Your task to perform on an android device: open app "Google Play services" Image 0: 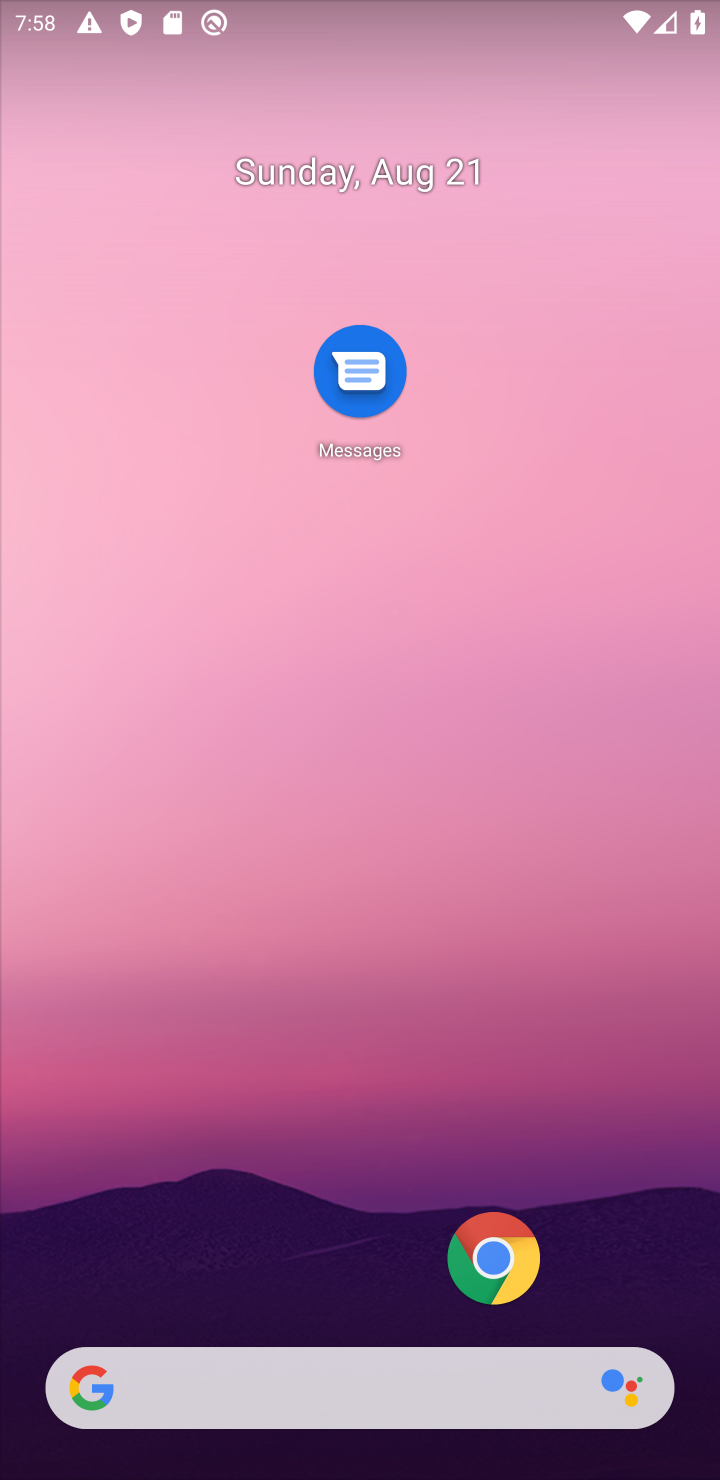
Step 0: drag from (451, 1423) to (337, 160)
Your task to perform on an android device: open app "Google Play services" Image 1: 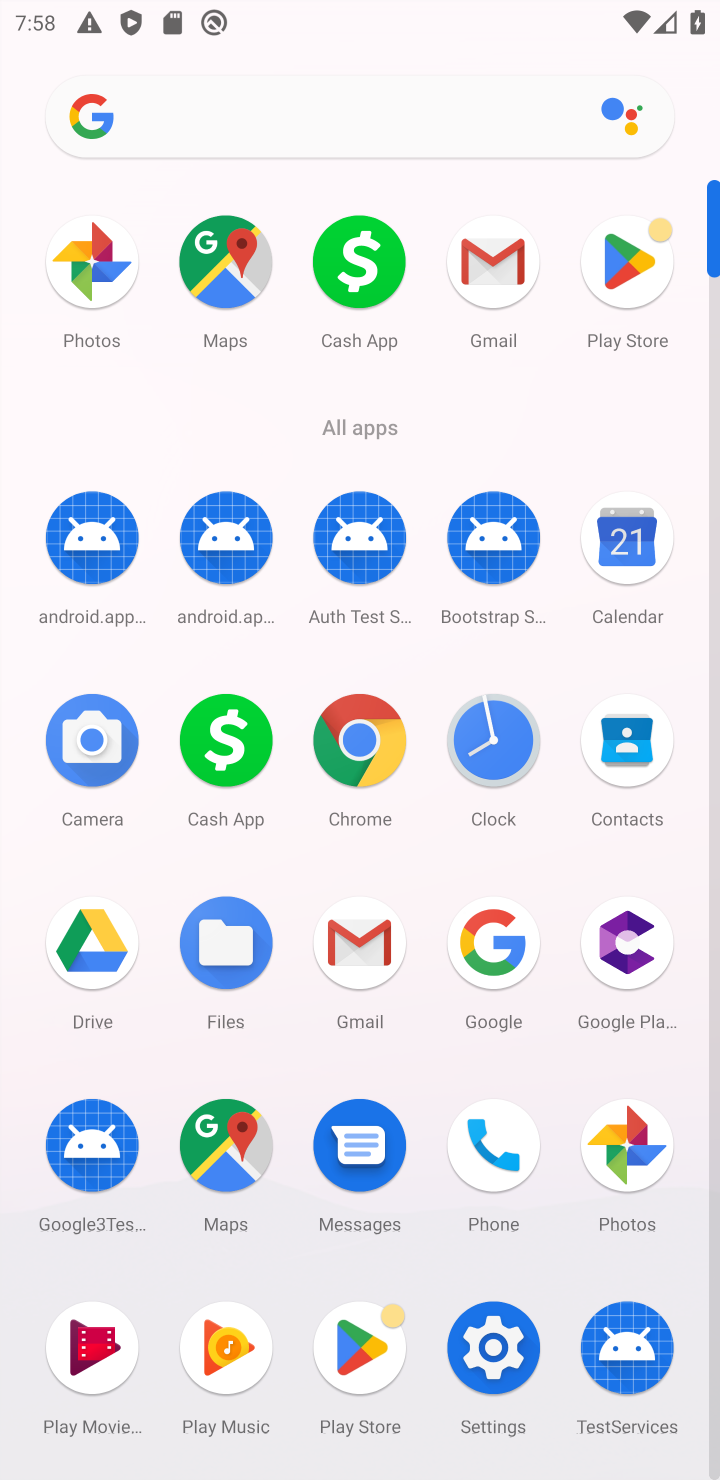
Step 1: click (610, 253)
Your task to perform on an android device: open app "Google Play services" Image 2: 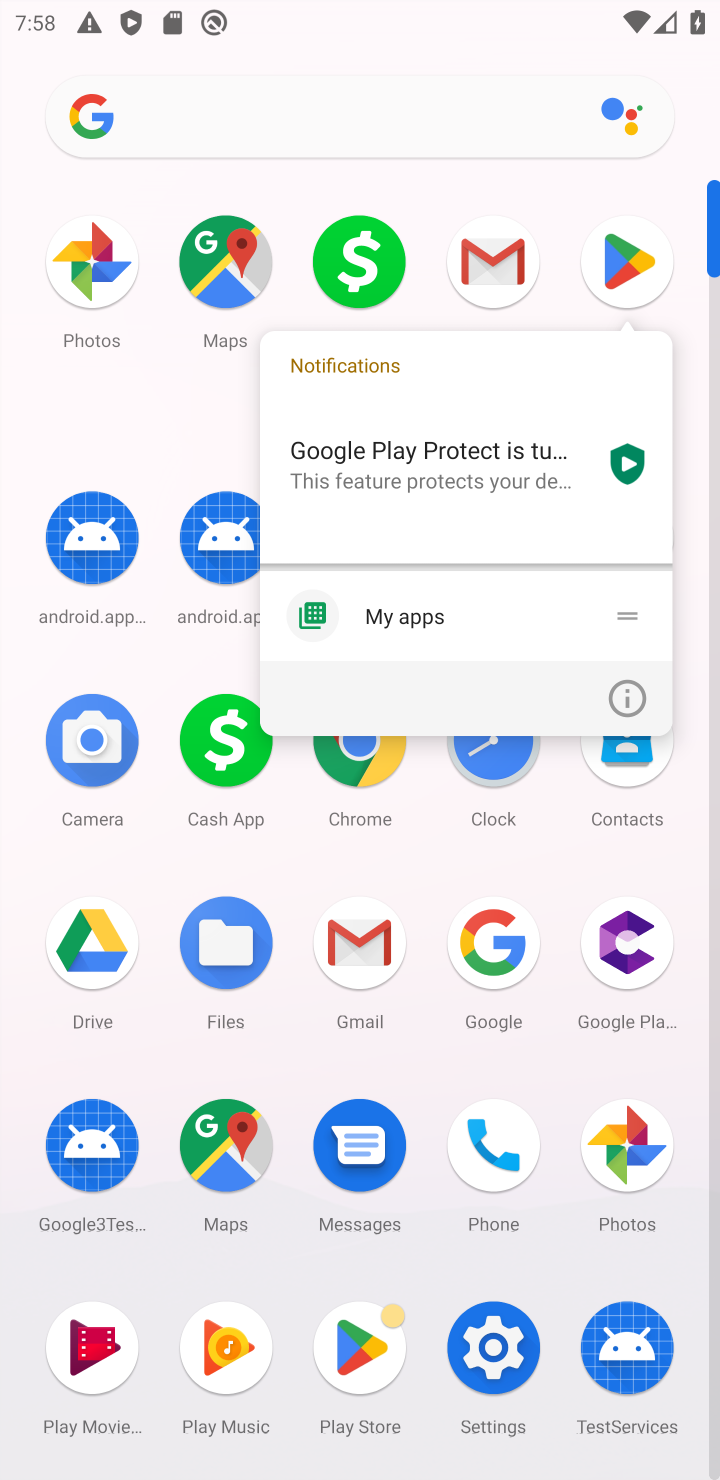
Step 2: click (610, 250)
Your task to perform on an android device: open app "Google Play services" Image 3: 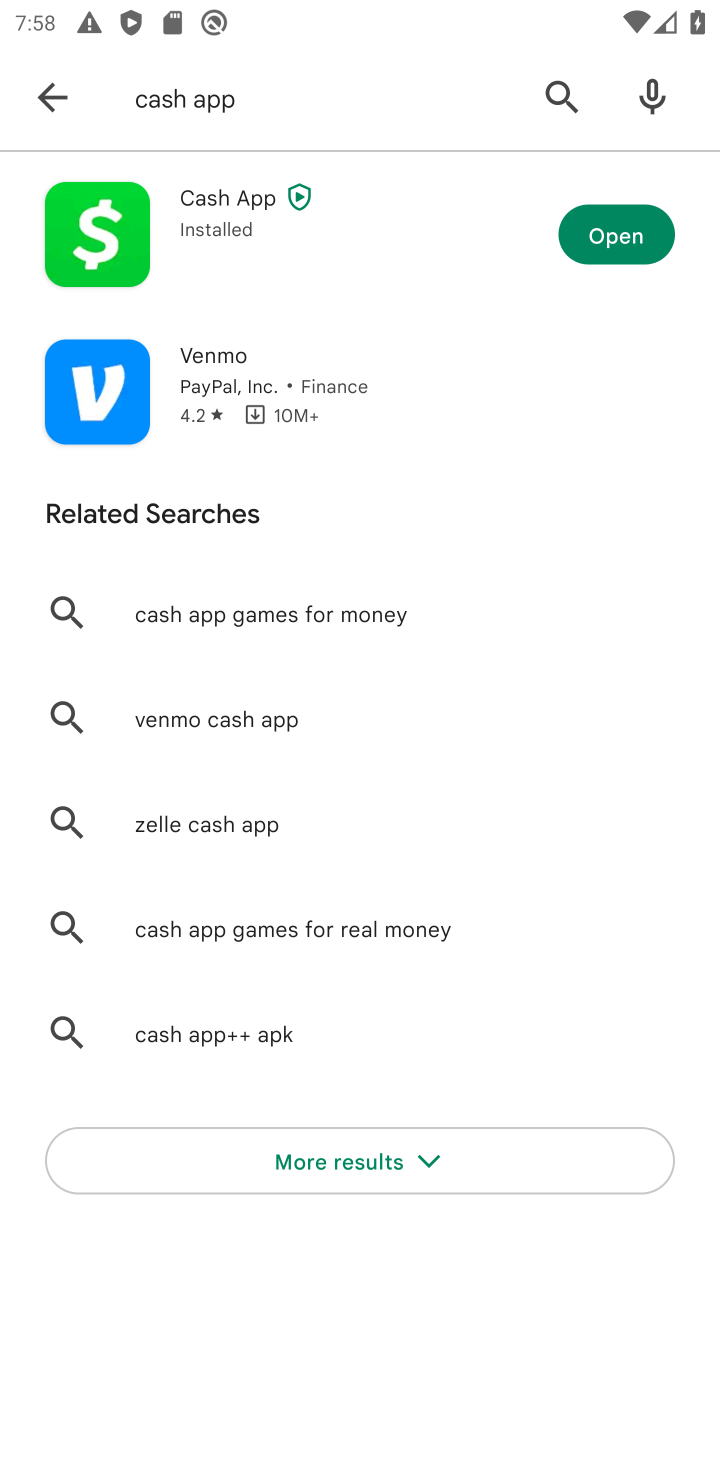
Step 3: press back button
Your task to perform on an android device: open app "Google Play services" Image 4: 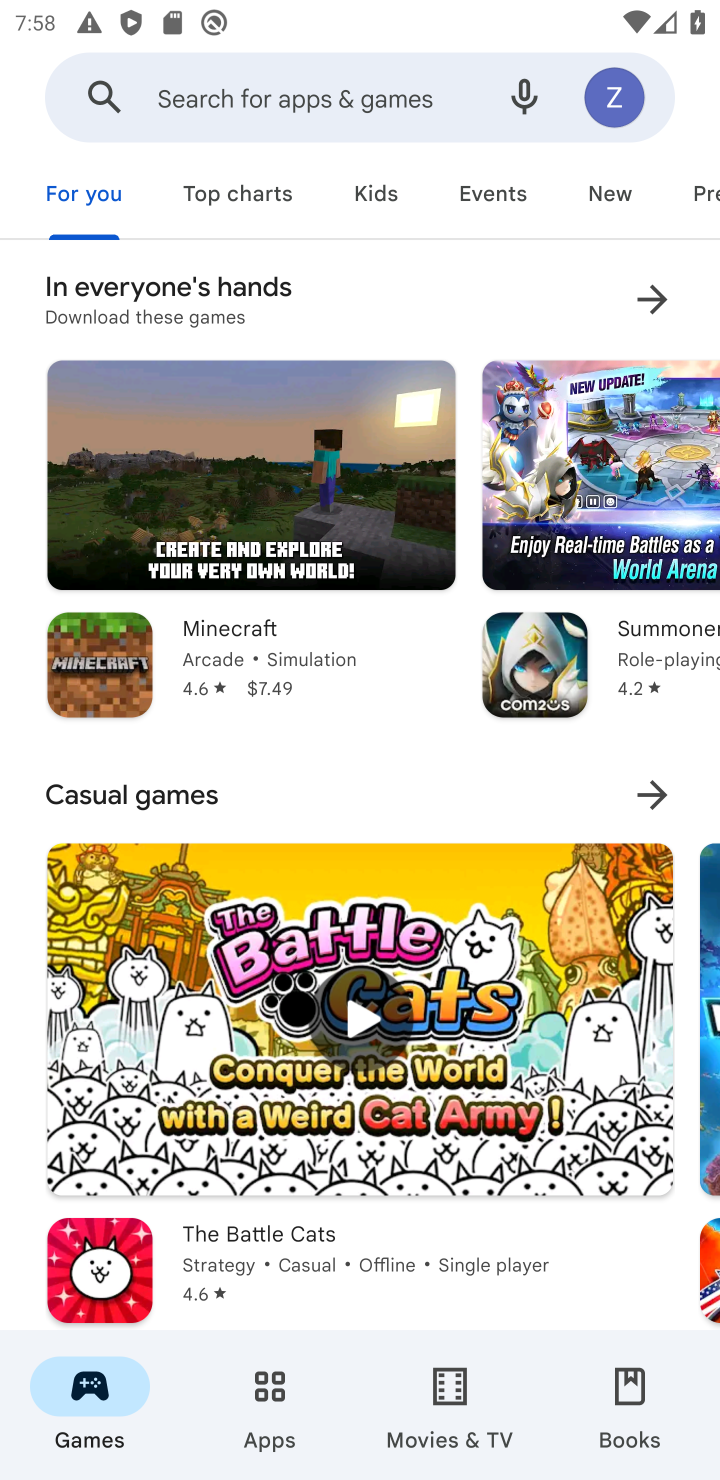
Step 4: click (223, 95)
Your task to perform on an android device: open app "Google Play services" Image 5: 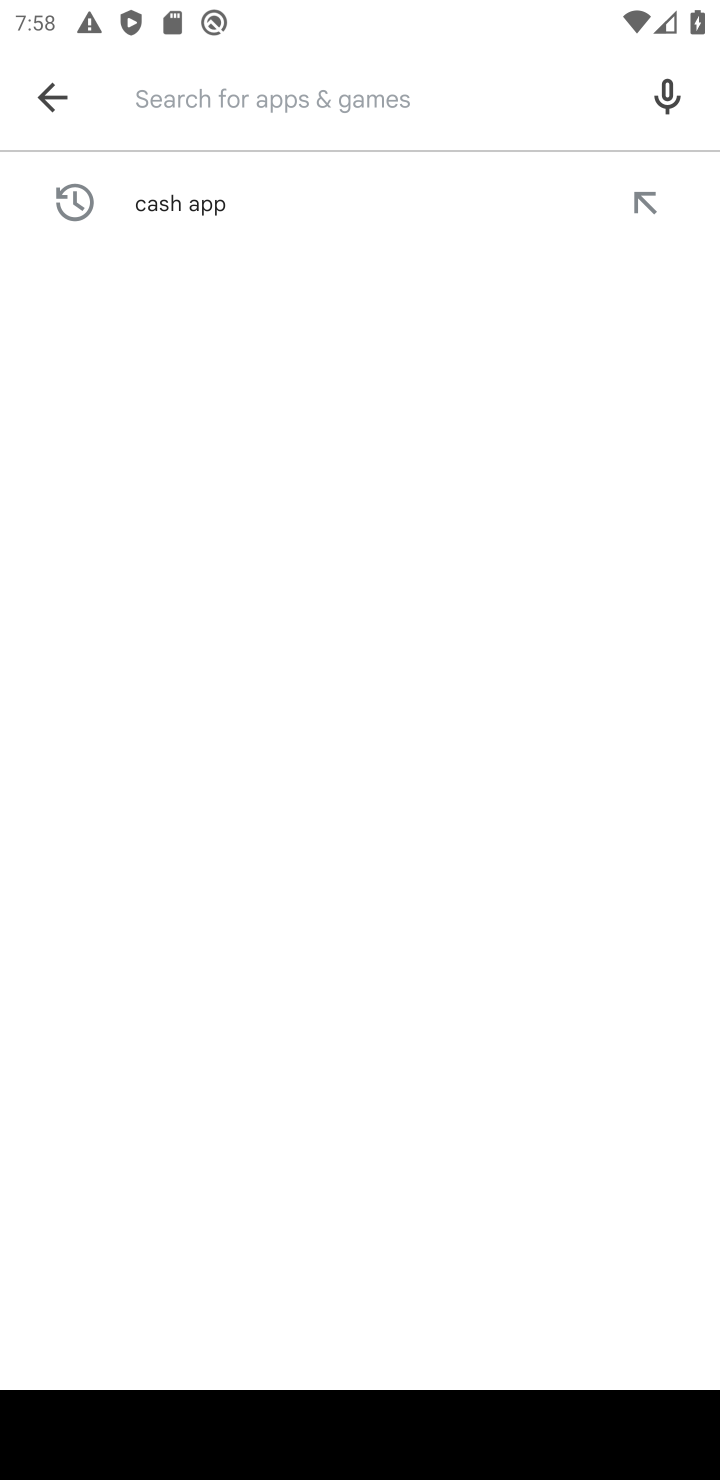
Step 5: type ""Google Play services"
Your task to perform on an android device: open app "Google Play services" Image 6: 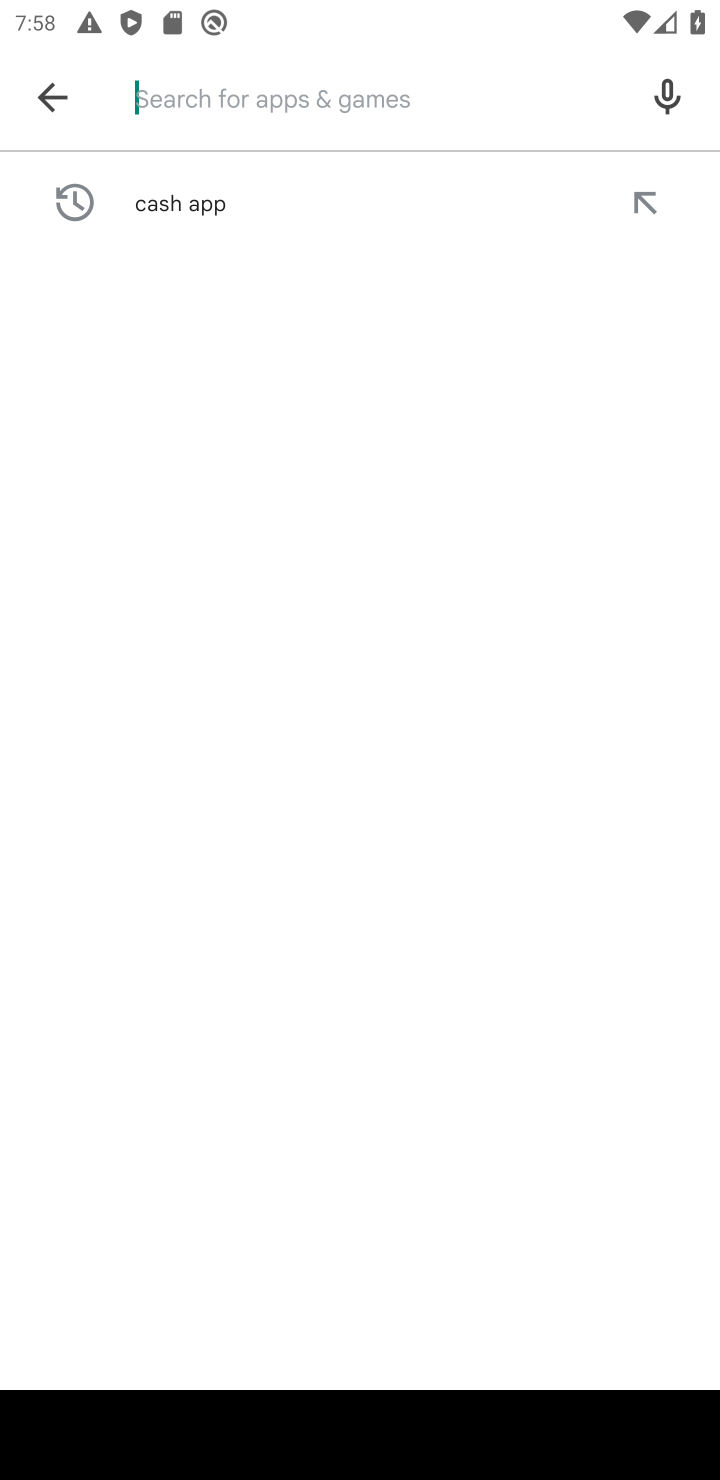
Step 6: press enter
Your task to perform on an android device: open app "Google Play services" Image 7: 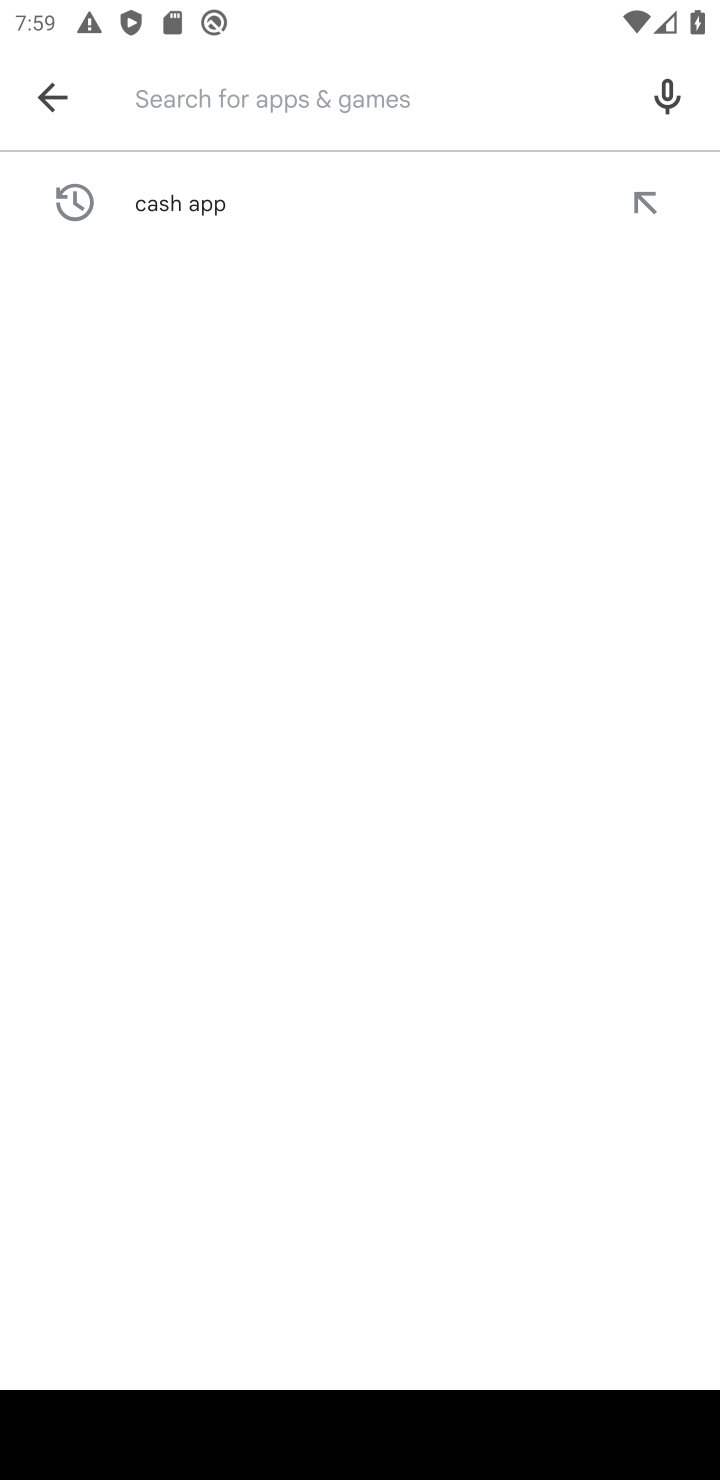
Step 7: type "Google Play services"
Your task to perform on an android device: open app "Google Play services" Image 8: 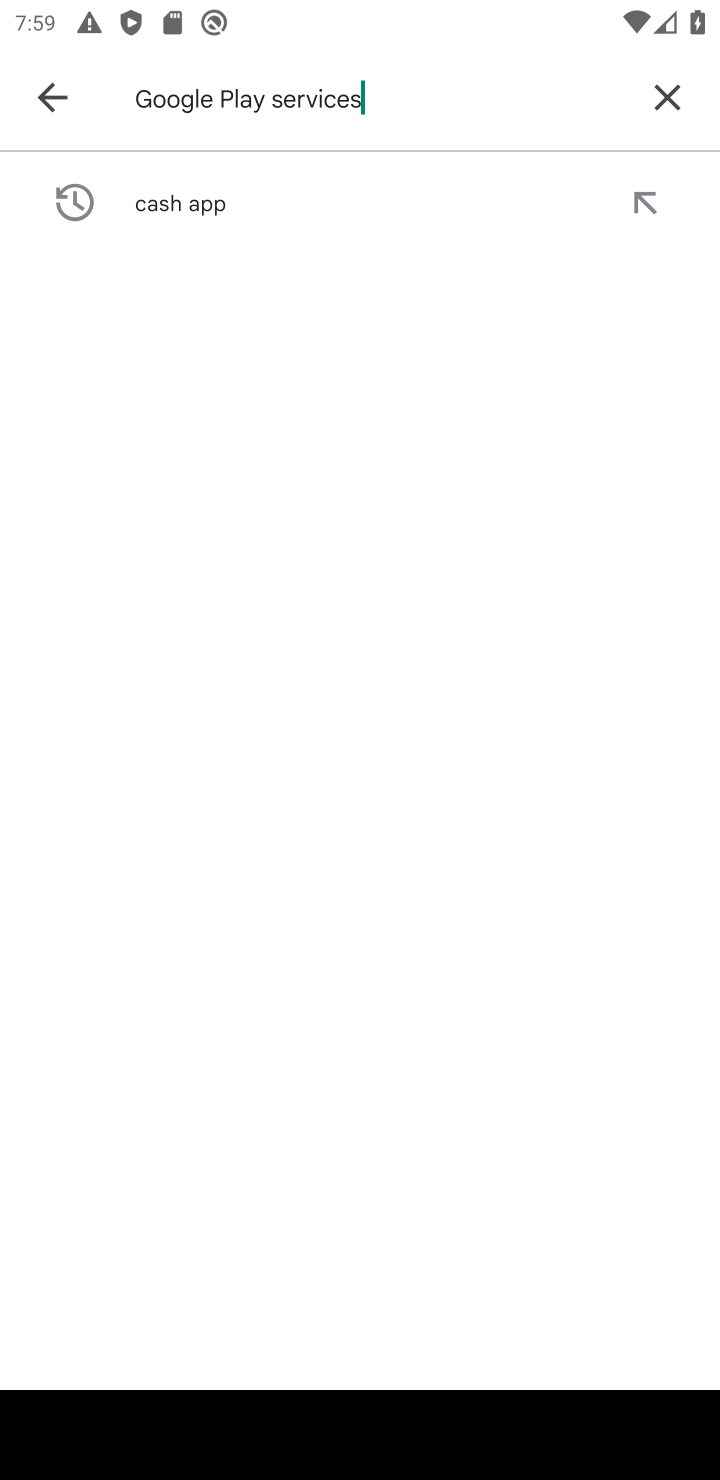
Step 8: press enter
Your task to perform on an android device: open app "Google Play services" Image 9: 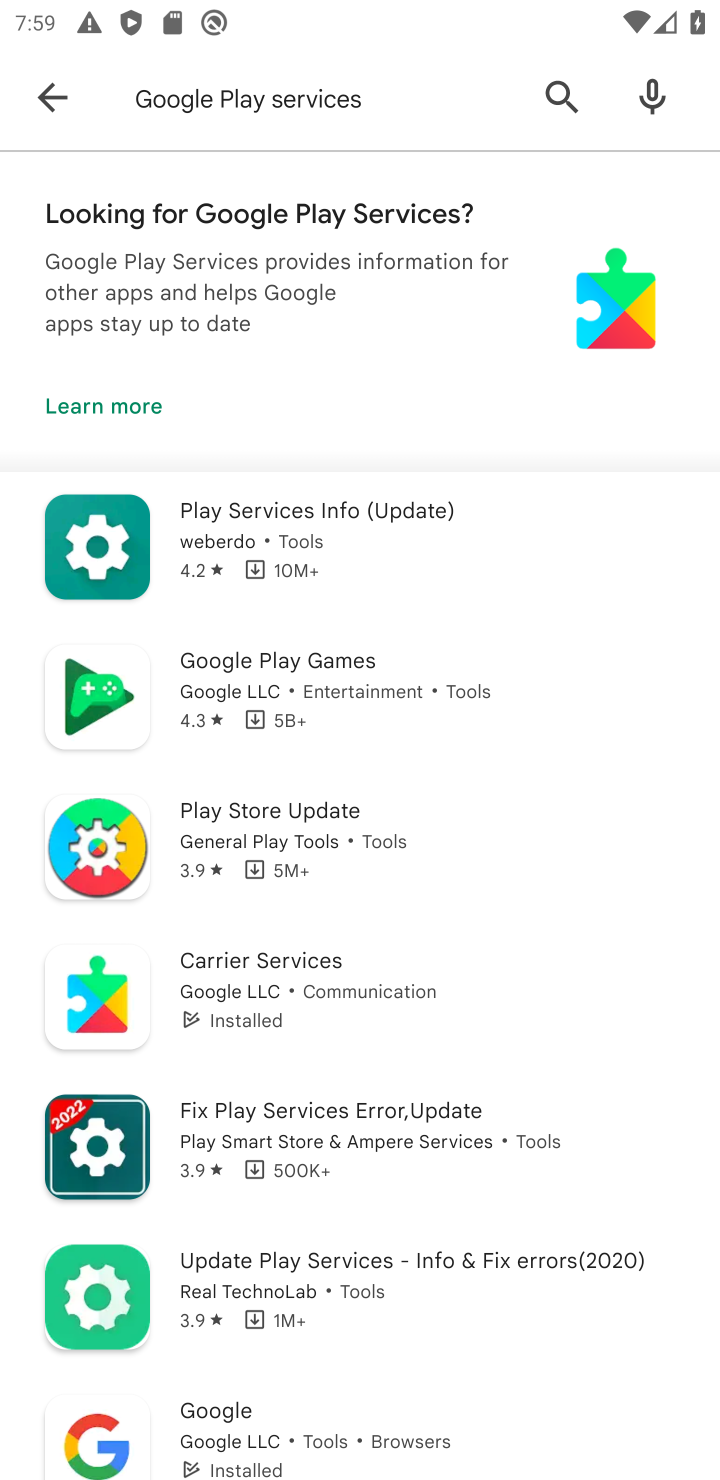
Step 9: click (357, 534)
Your task to perform on an android device: open app "Google Play services" Image 10: 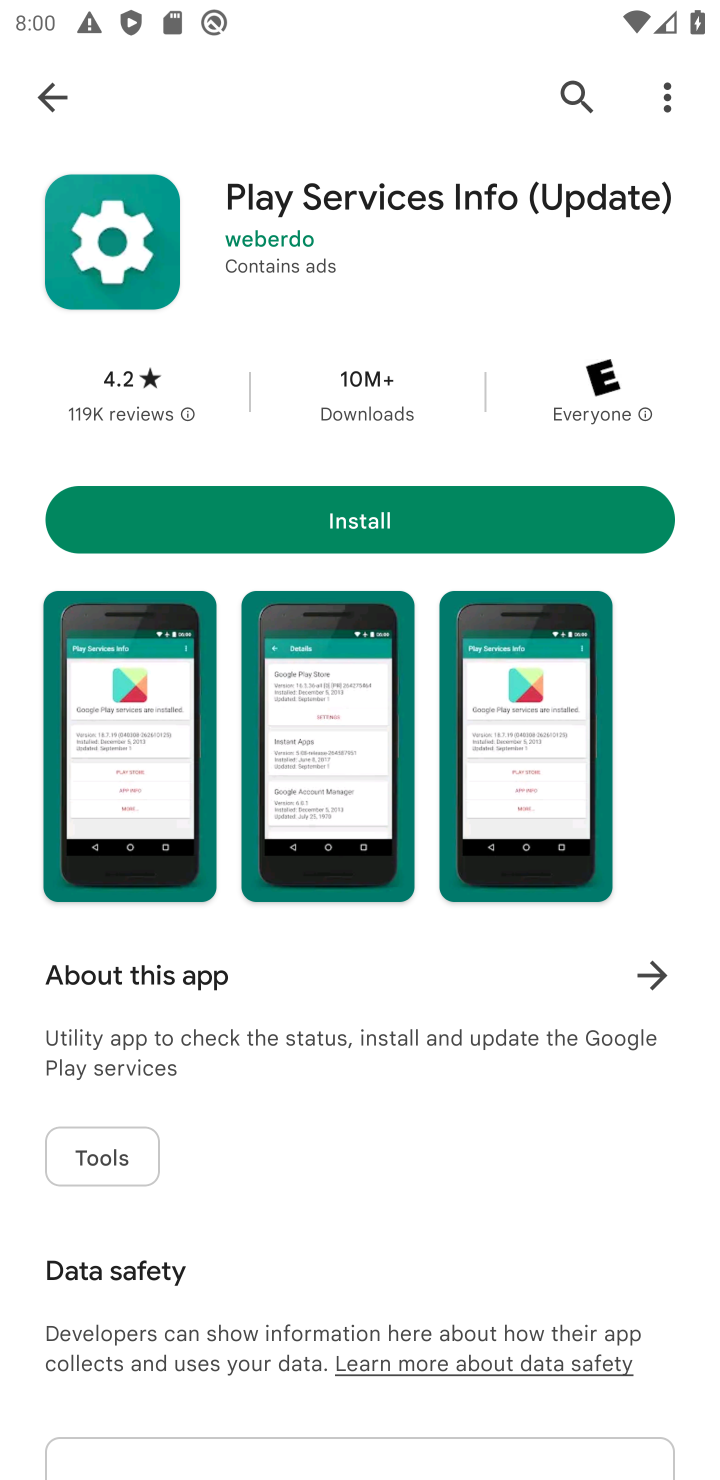
Step 10: task complete